Your task to perform on an android device: Go to Amazon Image 0: 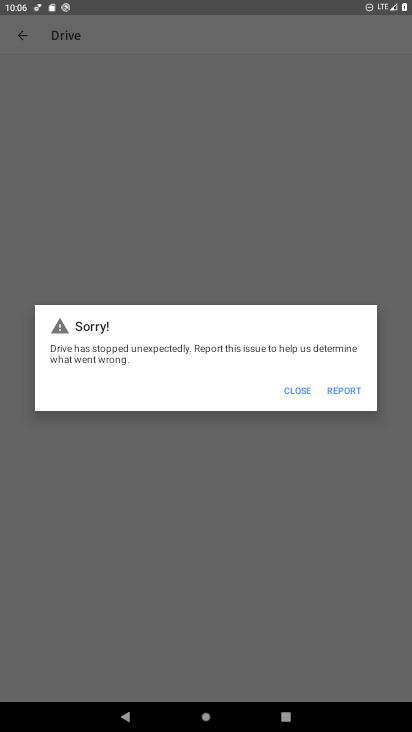
Step 0: press home button
Your task to perform on an android device: Go to Amazon Image 1: 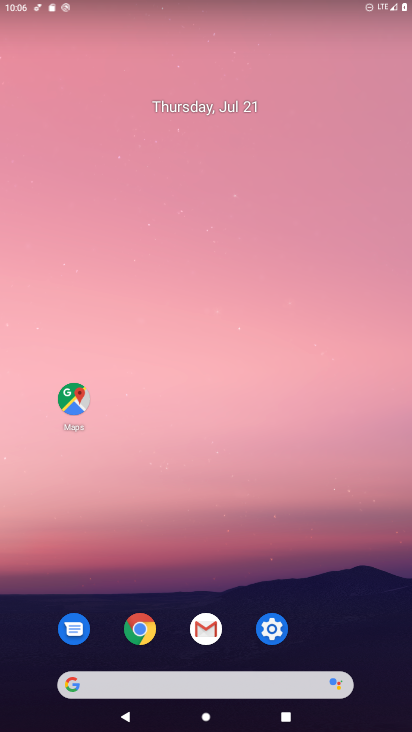
Step 1: click (149, 615)
Your task to perform on an android device: Go to Amazon Image 2: 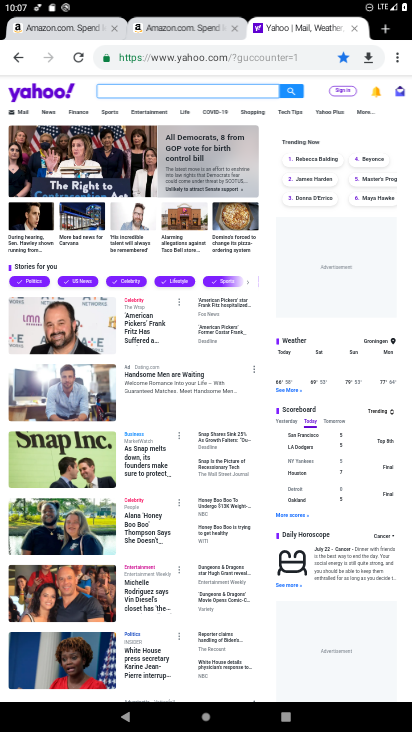
Step 2: click (382, 29)
Your task to perform on an android device: Go to Amazon Image 3: 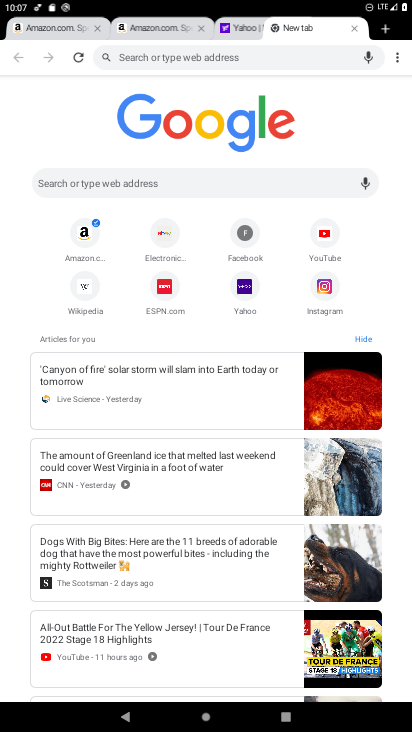
Step 3: click (82, 238)
Your task to perform on an android device: Go to Amazon Image 4: 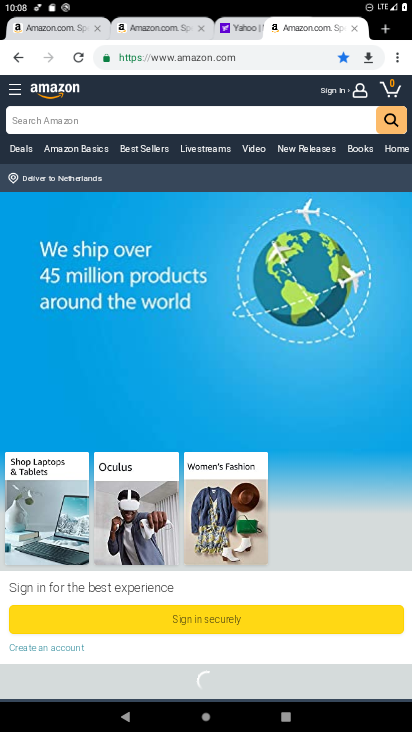
Step 4: task complete